Your task to perform on an android device: turn pop-ups off in chrome Image 0: 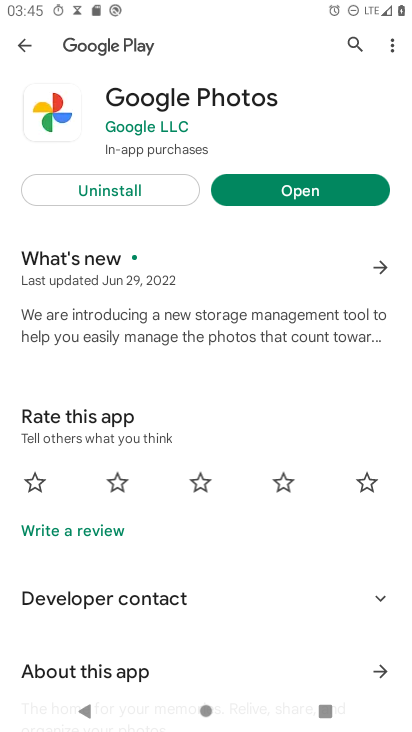
Step 0: press home button
Your task to perform on an android device: turn pop-ups off in chrome Image 1: 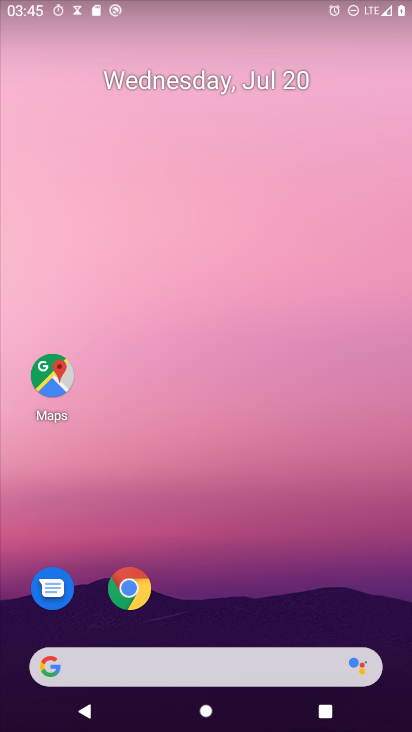
Step 1: click (127, 578)
Your task to perform on an android device: turn pop-ups off in chrome Image 2: 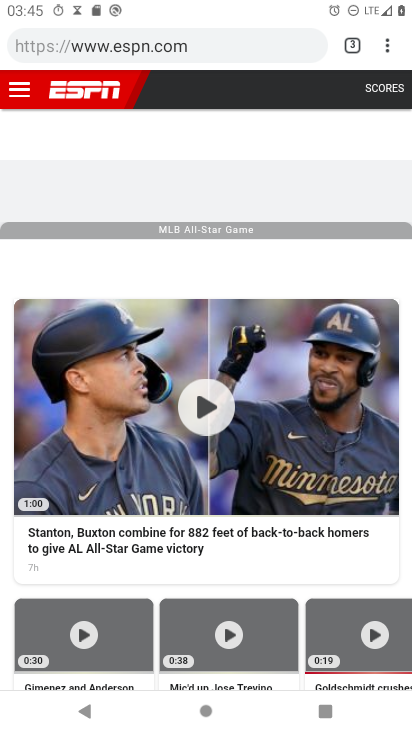
Step 2: click (391, 47)
Your task to perform on an android device: turn pop-ups off in chrome Image 3: 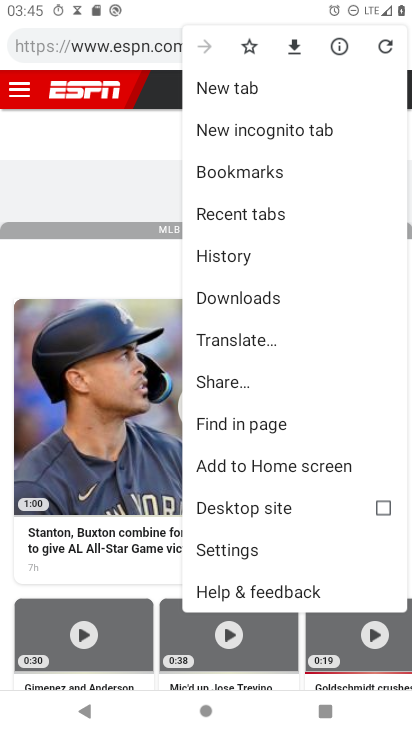
Step 3: click (202, 548)
Your task to perform on an android device: turn pop-ups off in chrome Image 4: 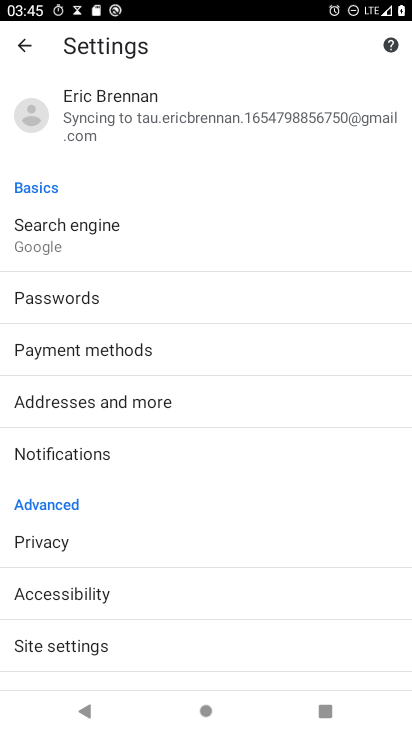
Step 4: click (53, 635)
Your task to perform on an android device: turn pop-ups off in chrome Image 5: 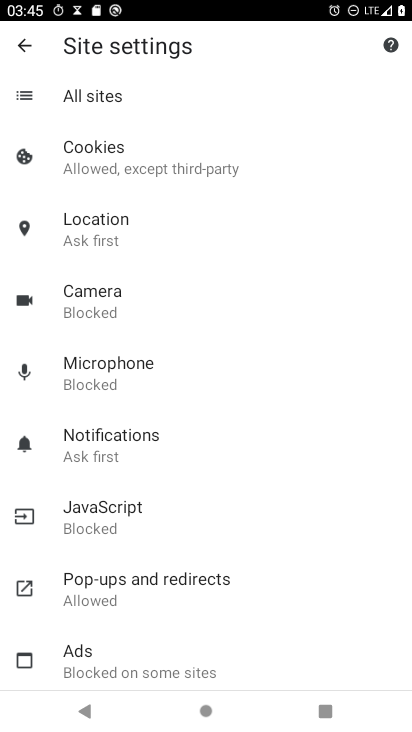
Step 5: click (64, 595)
Your task to perform on an android device: turn pop-ups off in chrome Image 6: 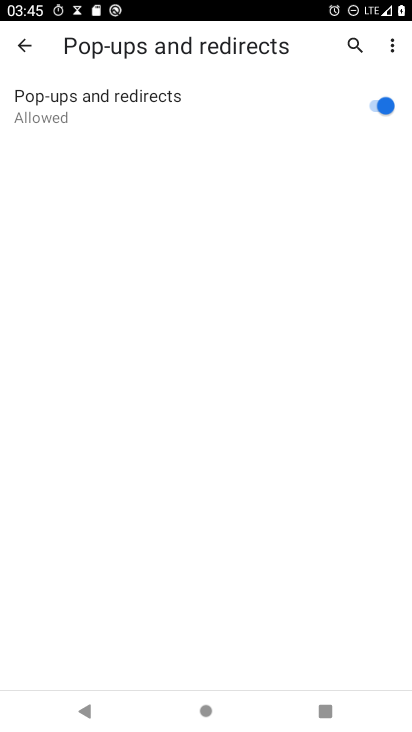
Step 6: click (367, 102)
Your task to perform on an android device: turn pop-ups off in chrome Image 7: 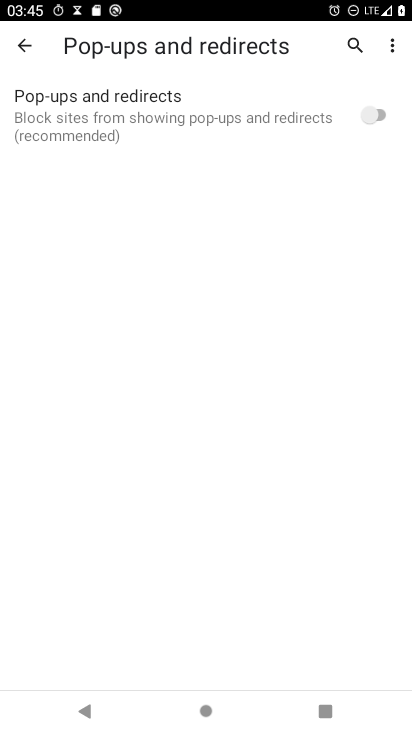
Step 7: task complete